Your task to perform on an android device: Search for vegetarian restaurants on Maps Image 0: 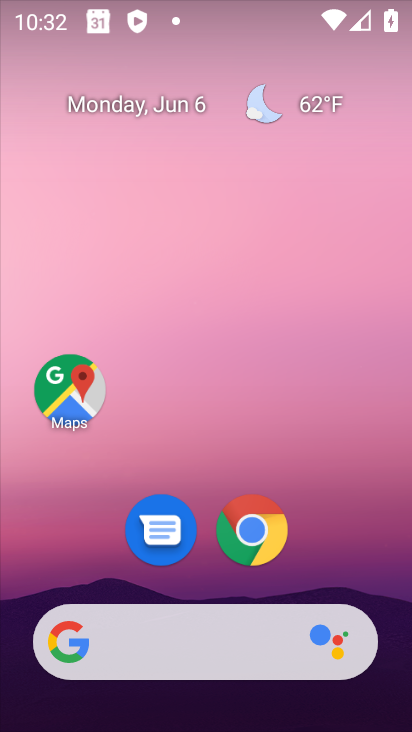
Step 0: click (75, 390)
Your task to perform on an android device: Search for vegetarian restaurants on Maps Image 1: 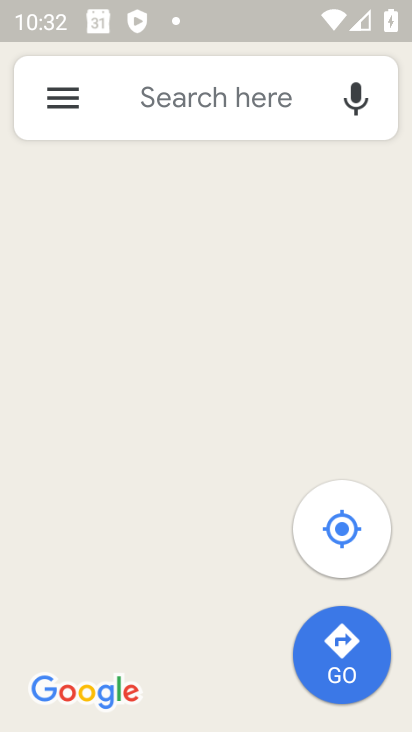
Step 1: click (217, 101)
Your task to perform on an android device: Search for vegetarian restaurants on Maps Image 2: 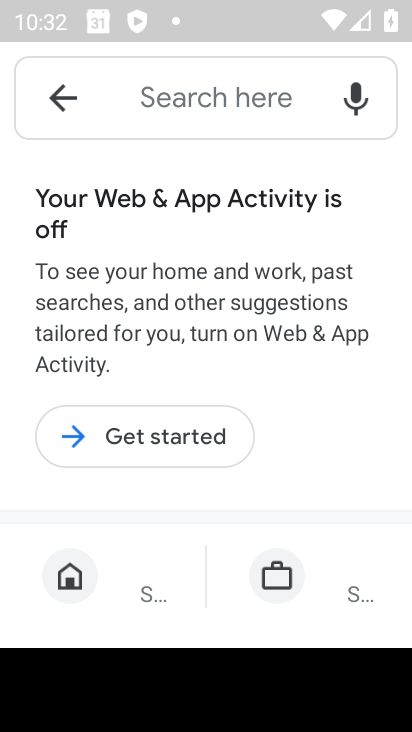
Step 2: click (161, 427)
Your task to perform on an android device: Search for vegetarian restaurants on Maps Image 3: 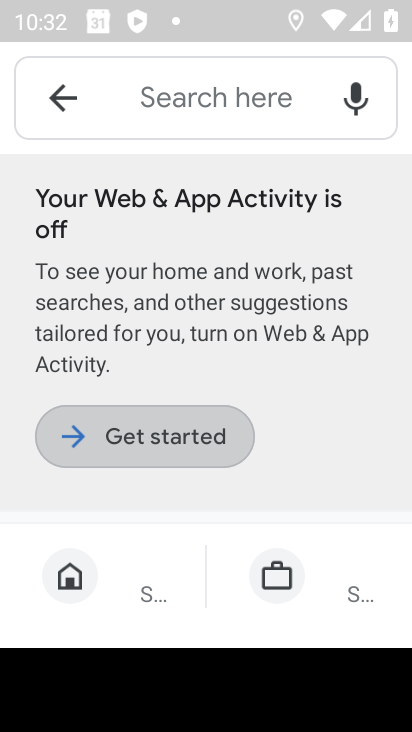
Step 3: click (144, 434)
Your task to perform on an android device: Search for vegetarian restaurants on Maps Image 4: 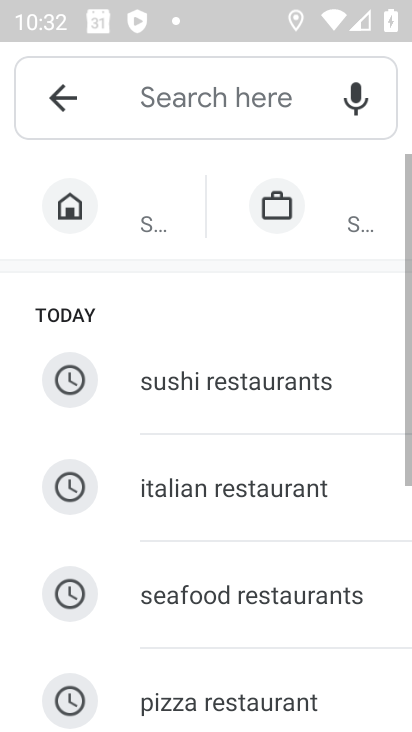
Step 4: click (176, 103)
Your task to perform on an android device: Search for vegetarian restaurants on Maps Image 5: 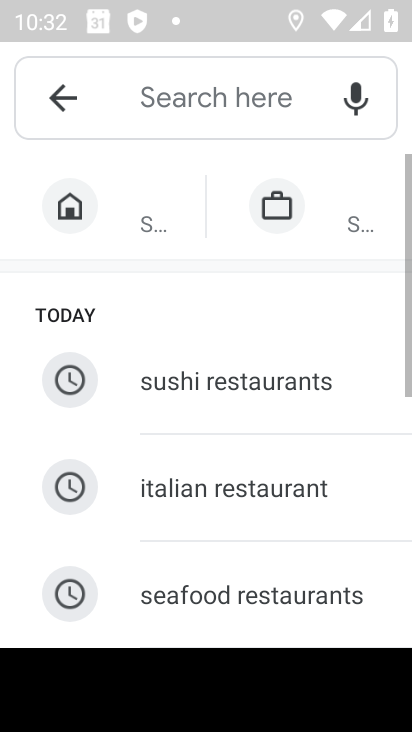
Step 5: drag from (226, 480) to (189, 98)
Your task to perform on an android device: Search for vegetarian restaurants on Maps Image 6: 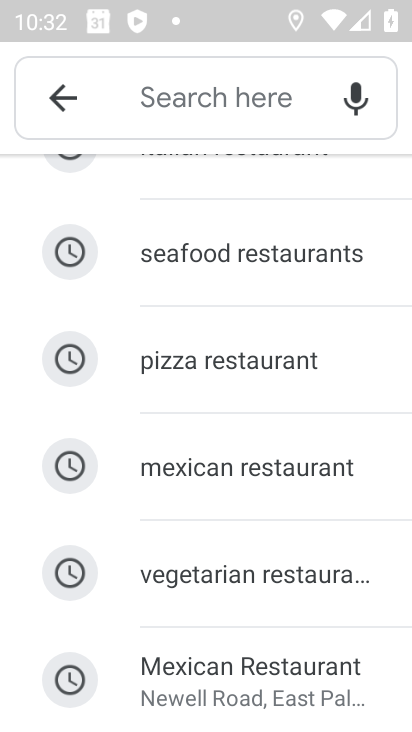
Step 6: click (209, 561)
Your task to perform on an android device: Search for vegetarian restaurants on Maps Image 7: 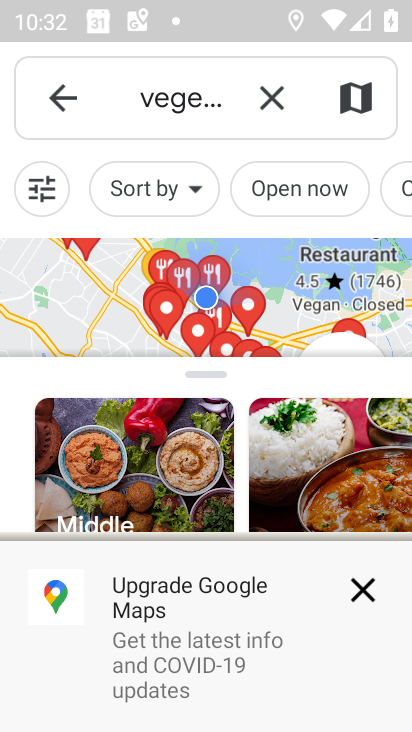
Step 7: task complete